Your task to perform on an android device: all mails in gmail Image 0: 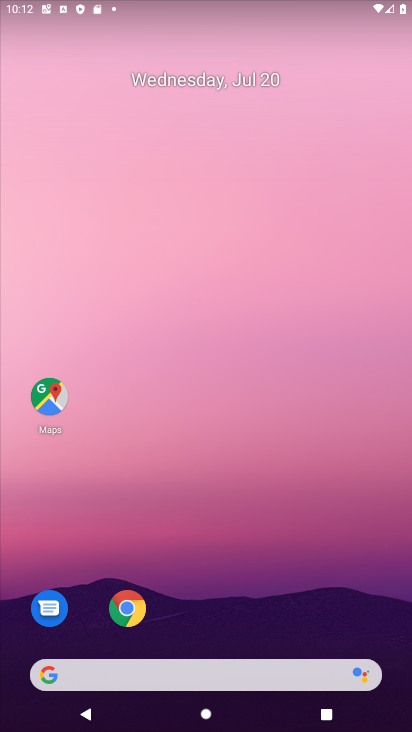
Step 0: drag from (212, 541) to (244, 40)
Your task to perform on an android device: all mails in gmail Image 1: 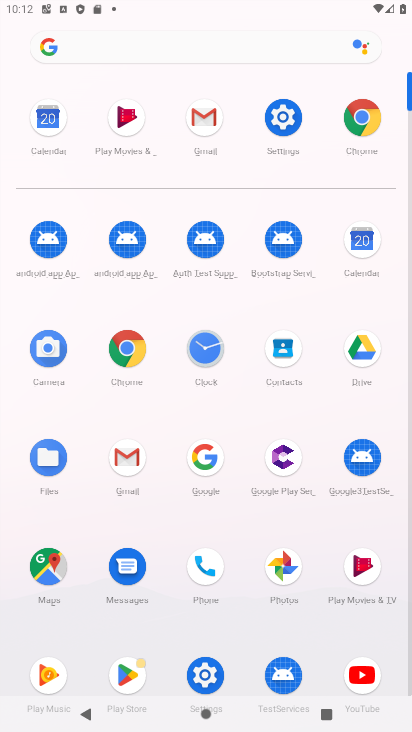
Step 1: click (131, 450)
Your task to perform on an android device: all mails in gmail Image 2: 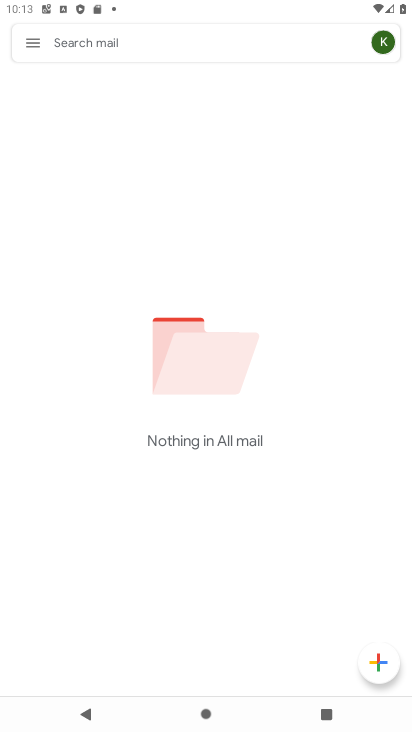
Step 2: click (23, 60)
Your task to perform on an android device: all mails in gmail Image 3: 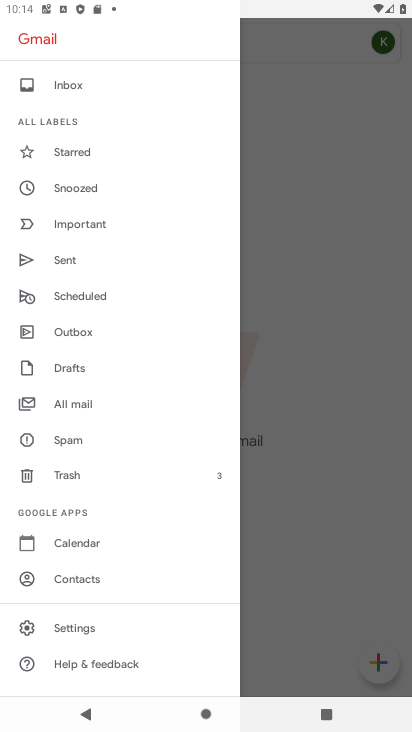
Step 3: click (124, 405)
Your task to perform on an android device: all mails in gmail Image 4: 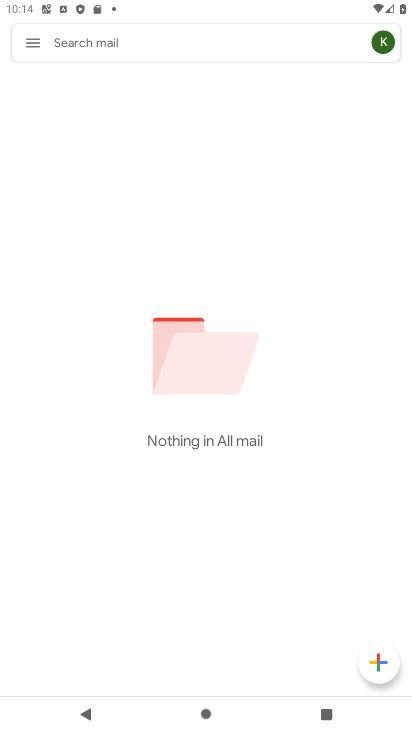
Step 4: task complete